Your task to perform on an android device: turn on wifi Image 0: 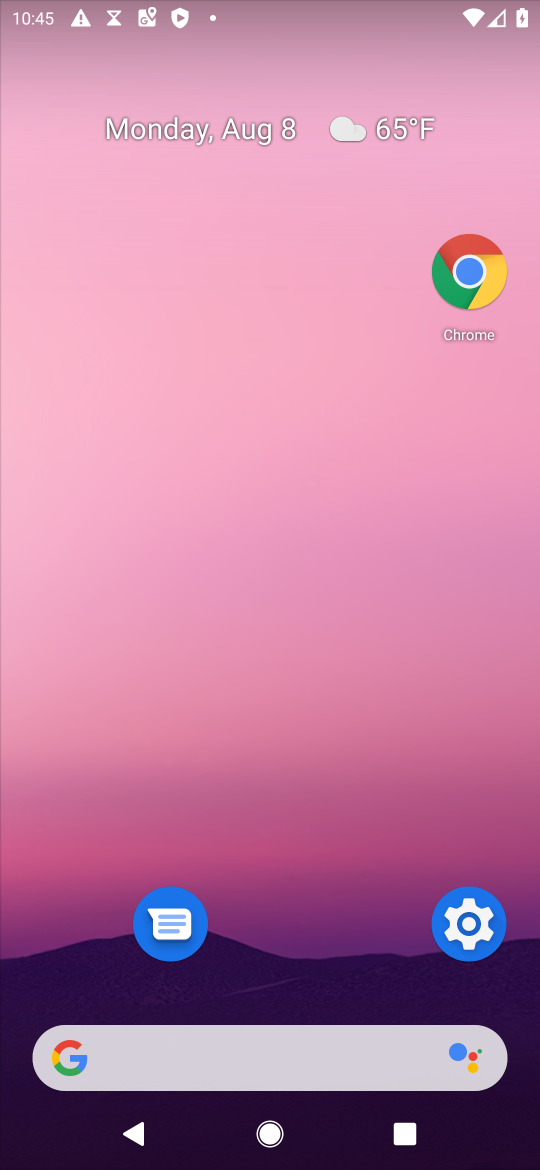
Step 0: press home button
Your task to perform on an android device: turn on wifi Image 1: 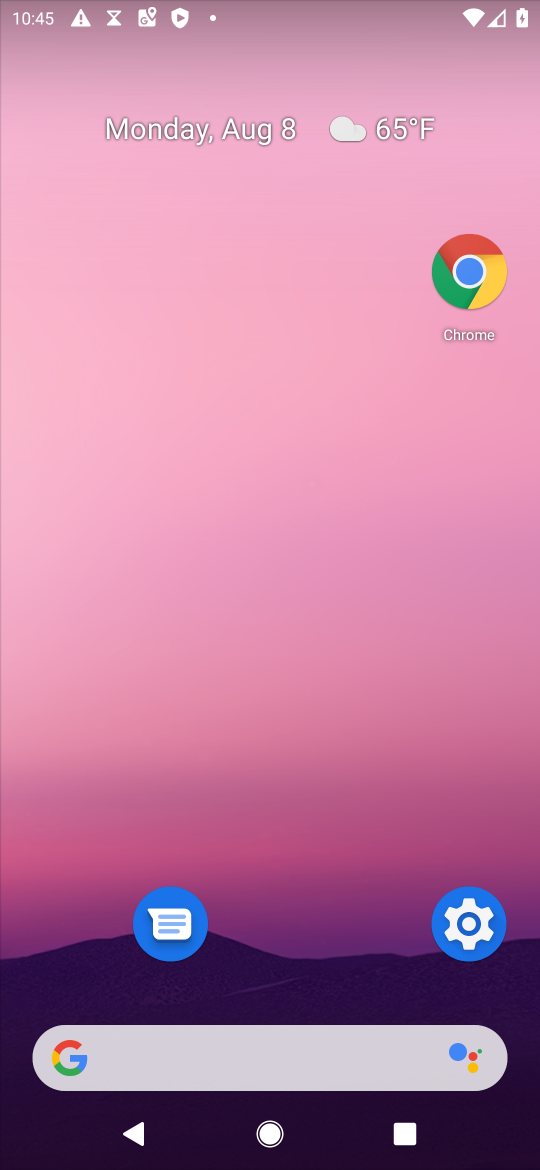
Step 1: task complete